Your task to perform on an android device: Do I have any events this weekend? Image 0: 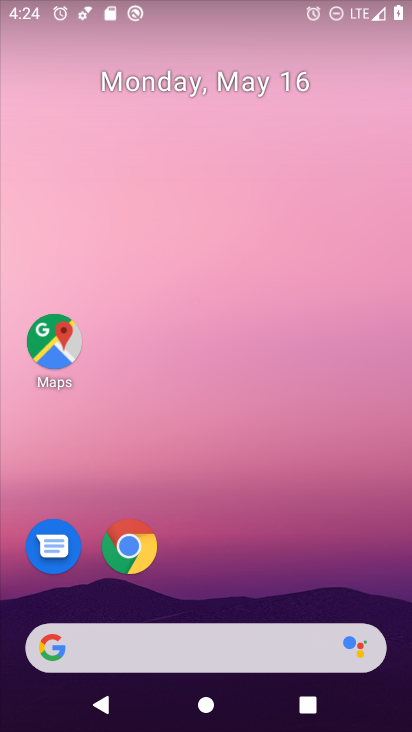
Step 0: drag from (330, 509) to (313, 125)
Your task to perform on an android device: Do I have any events this weekend? Image 1: 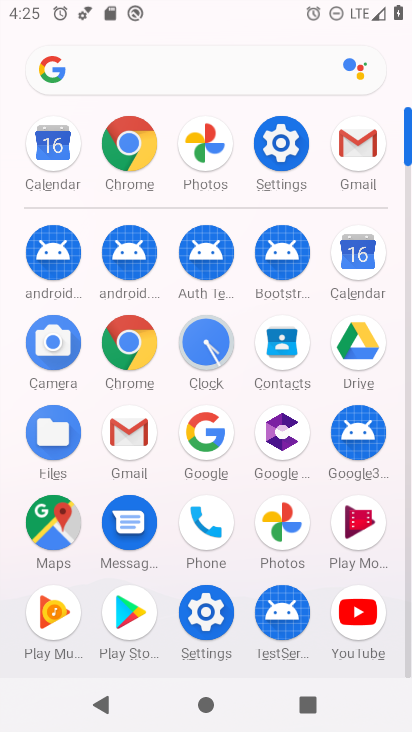
Step 1: click (366, 268)
Your task to perform on an android device: Do I have any events this weekend? Image 2: 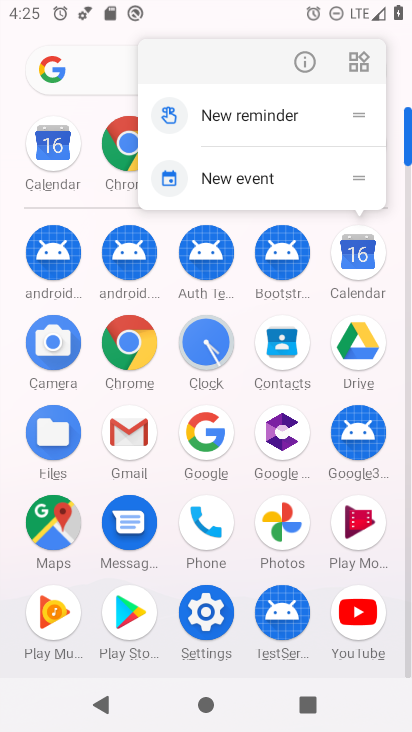
Step 2: click (370, 260)
Your task to perform on an android device: Do I have any events this weekend? Image 3: 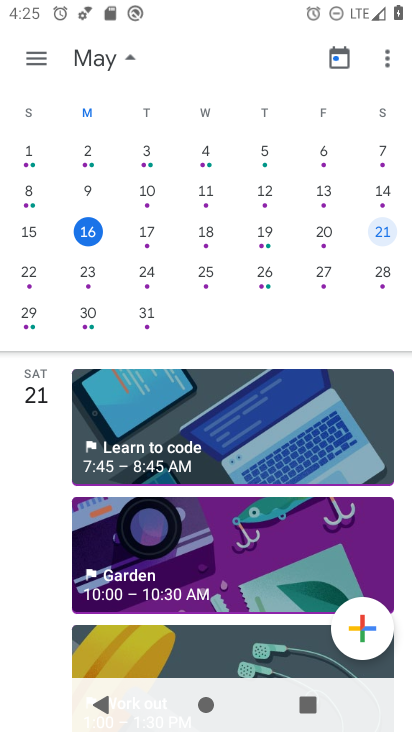
Step 3: drag from (253, 546) to (258, 309)
Your task to perform on an android device: Do I have any events this weekend? Image 4: 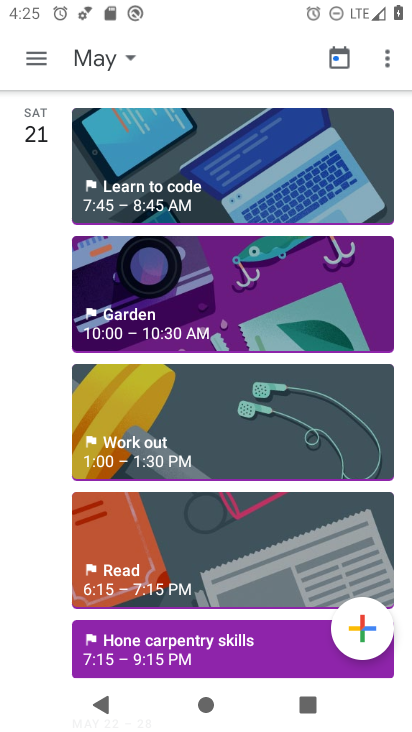
Step 4: click (205, 295)
Your task to perform on an android device: Do I have any events this weekend? Image 5: 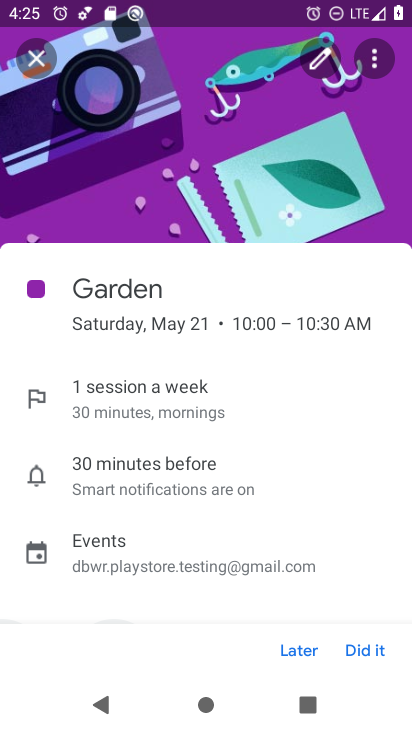
Step 5: task complete